Your task to perform on an android device: turn off javascript in the chrome app Image 0: 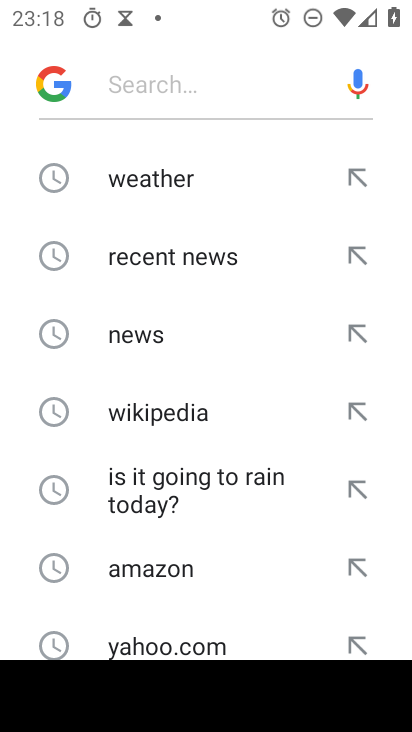
Step 0: press home button
Your task to perform on an android device: turn off javascript in the chrome app Image 1: 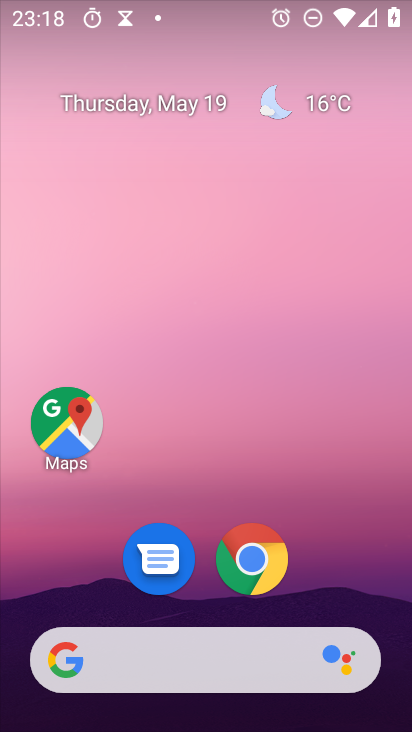
Step 1: click (248, 559)
Your task to perform on an android device: turn off javascript in the chrome app Image 2: 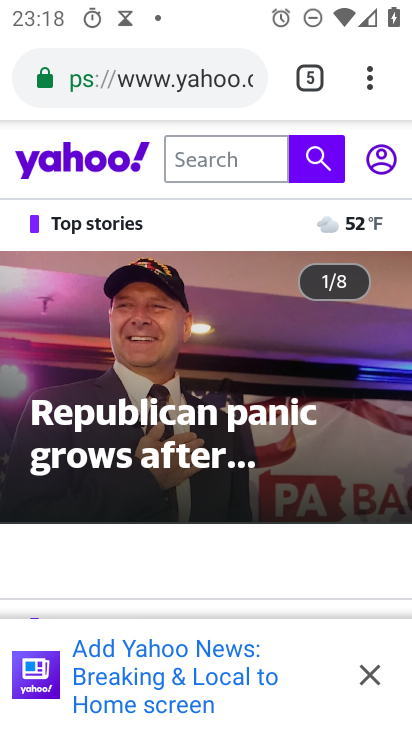
Step 2: click (370, 83)
Your task to perform on an android device: turn off javascript in the chrome app Image 3: 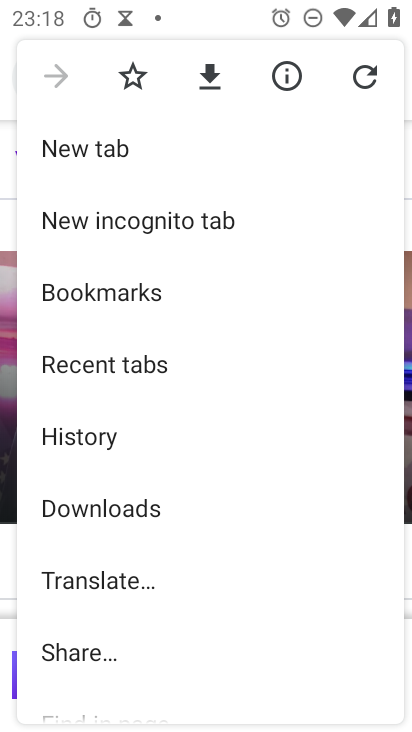
Step 3: drag from (80, 659) to (83, 276)
Your task to perform on an android device: turn off javascript in the chrome app Image 4: 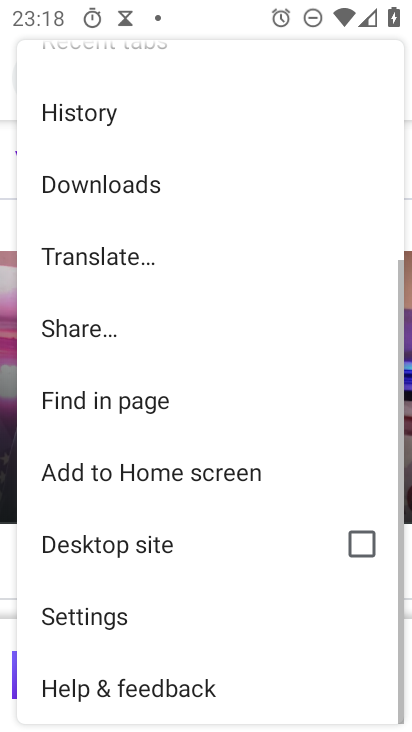
Step 4: click (100, 616)
Your task to perform on an android device: turn off javascript in the chrome app Image 5: 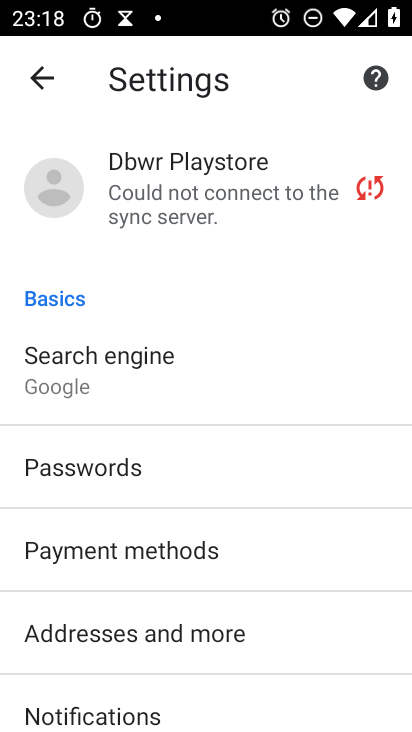
Step 5: drag from (111, 675) to (127, 277)
Your task to perform on an android device: turn off javascript in the chrome app Image 6: 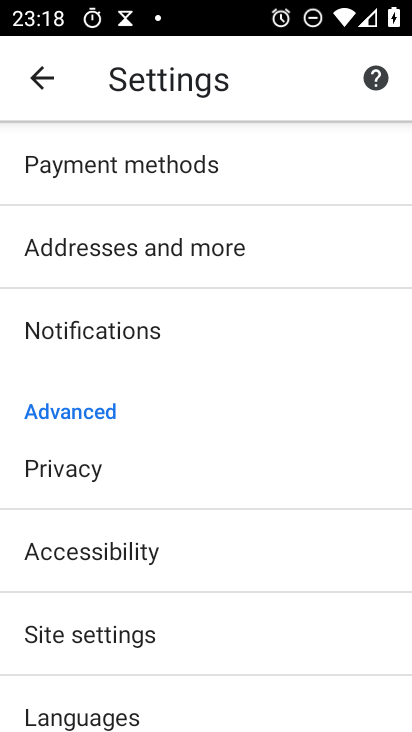
Step 6: click (92, 631)
Your task to perform on an android device: turn off javascript in the chrome app Image 7: 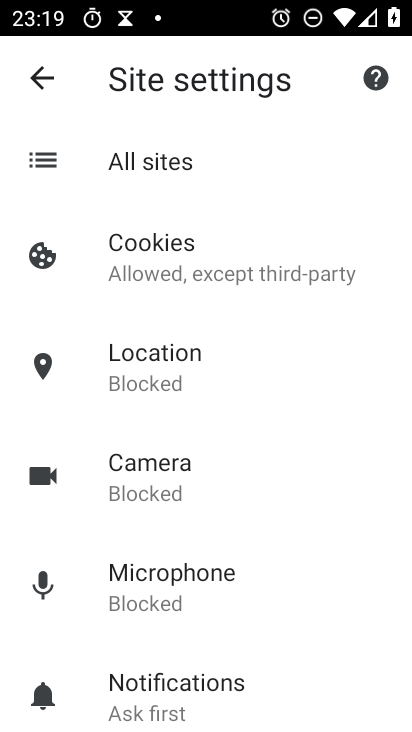
Step 7: drag from (192, 686) to (199, 344)
Your task to perform on an android device: turn off javascript in the chrome app Image 8: 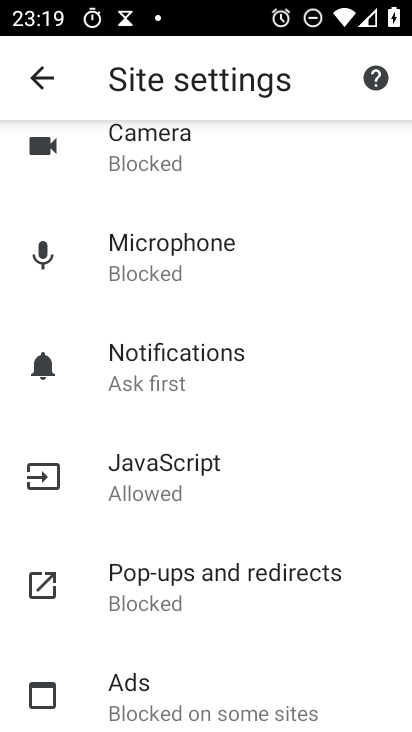
Step 8: click (159, 470)
Your task to perform on an android device: turn off javascript in the chrome app Image 9: 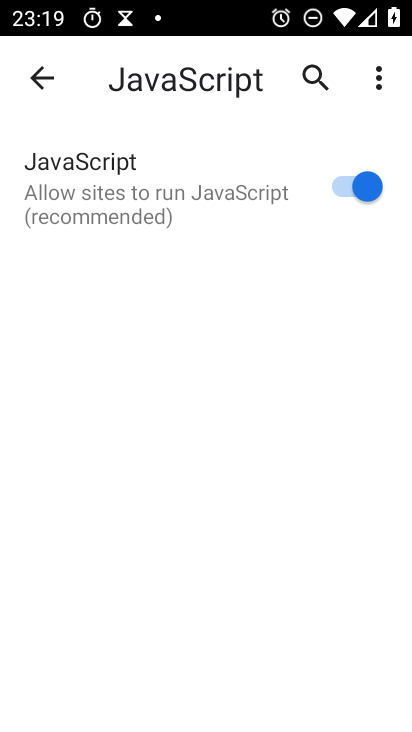
Step 9: click (342, 183)
Your task to perform on an android device: turn off javascript in the chrome app Image 10: 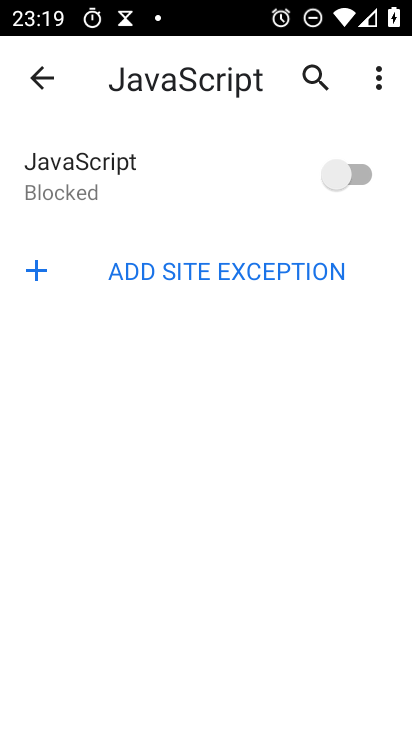
Step 10: task complete